Your task to perform on an android device: Search for jbl flip 4 on ebay, select the first entry, and add it to the cart. Image 0: 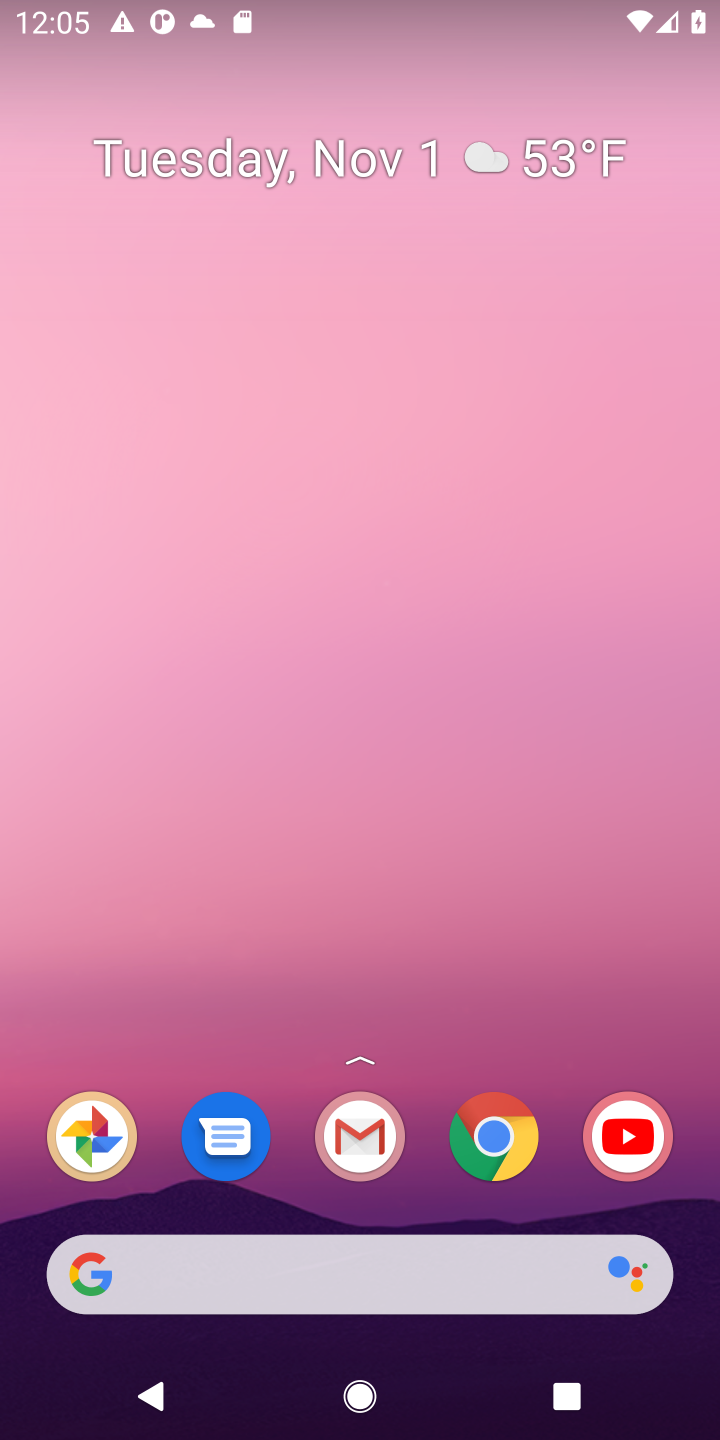
Step 0: press home button
Your task to perform on an android device: Search for jbl flip 4 on ebay, select the first entry, and add it to the cart. Image 1: 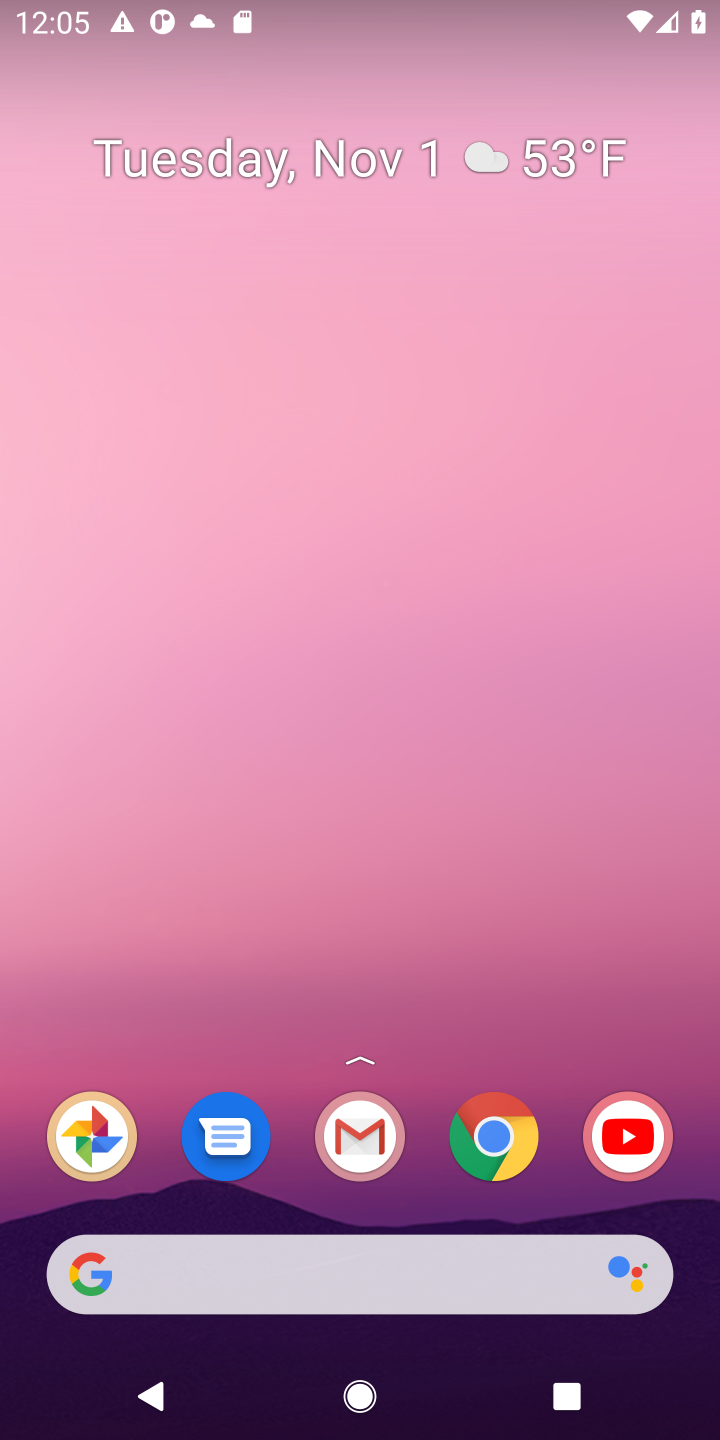
Step 1: click (144, 1256)
Your task to perform on an android device: Search for jbl flip 4 on ebay, select the first entry, and add it to the cart. Image 2: 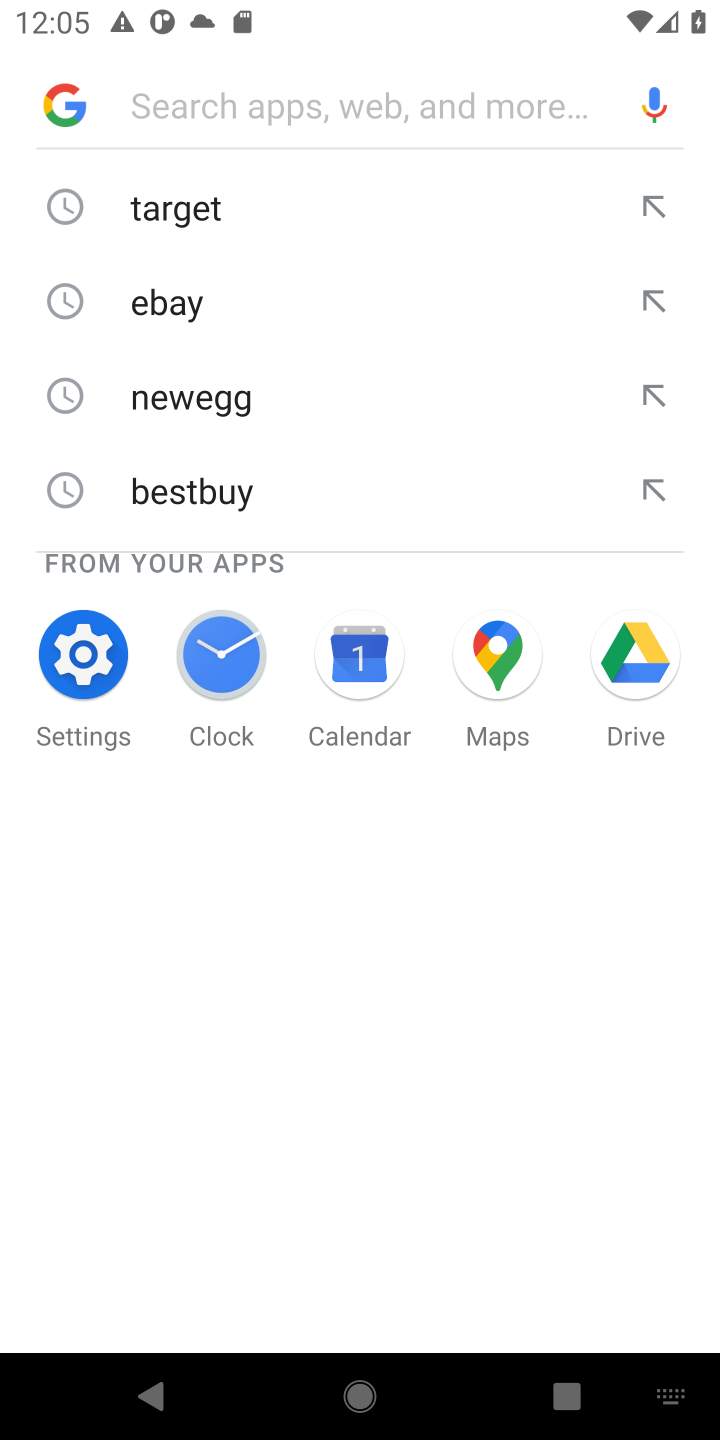
Step 2: press enter
Your task to perform on an android device: Search for jbl flip 4 on ebay, select the first entry, and add it to the cart. Image 3: 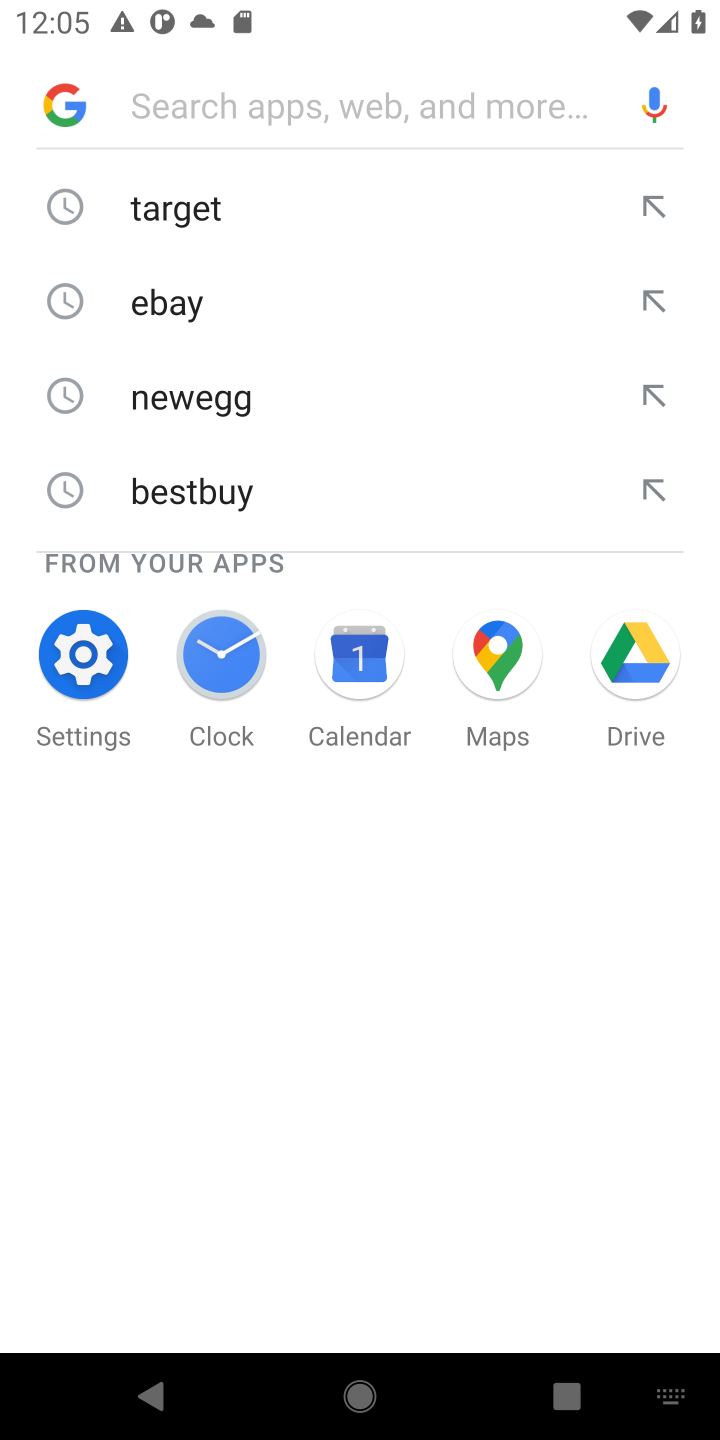
Step 3: type "ebay"
Your task to perform on an android device: Search for jbl flip 4 on ebay, select the first entry, and add it to the cart. Image 4: 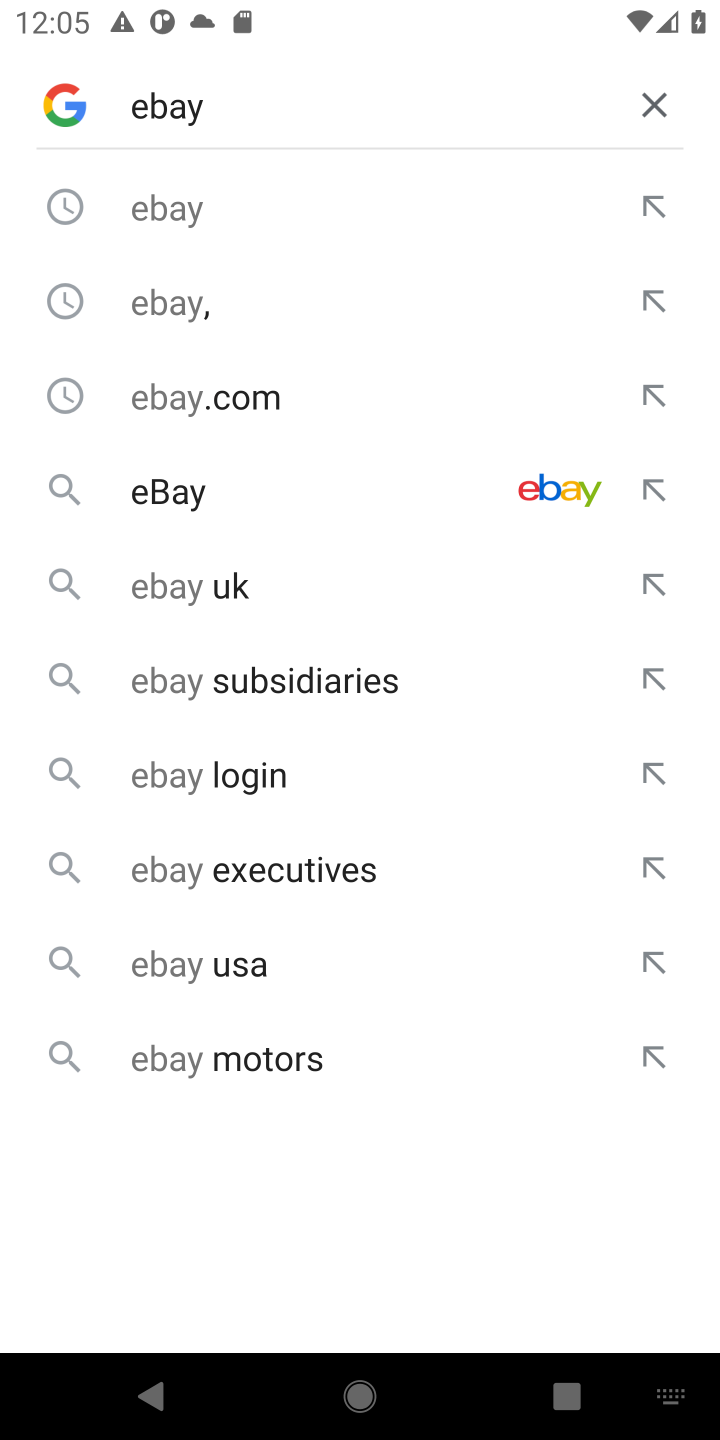
Step 4: press enter
Your task to perform on an android device: Search for jbl flip 4 on ebay, select the first entry, and add it to the cart. Image 5: 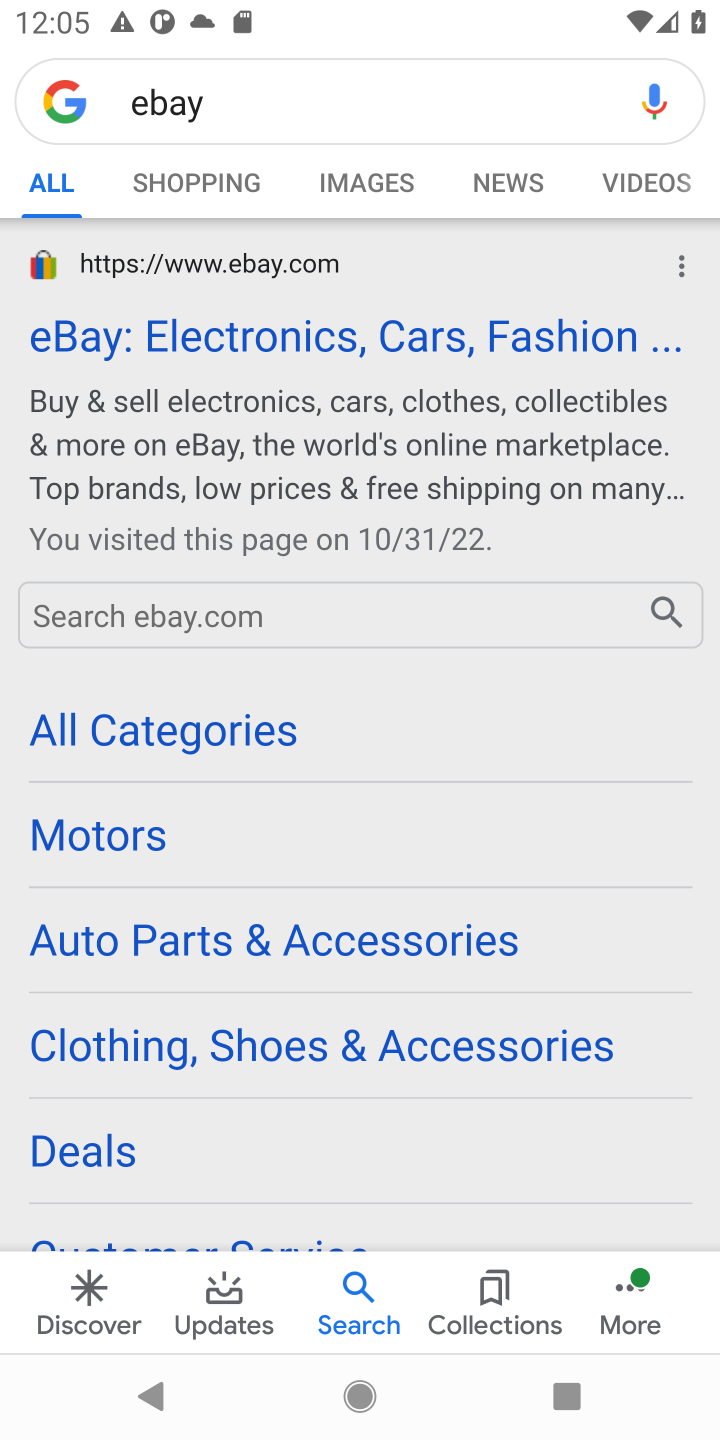
Step 5: click (151, 329)
Your task to perform on an android device: Search for jbl flip 4 on ebay, select the first entry, and add it to the cart. Image 6: 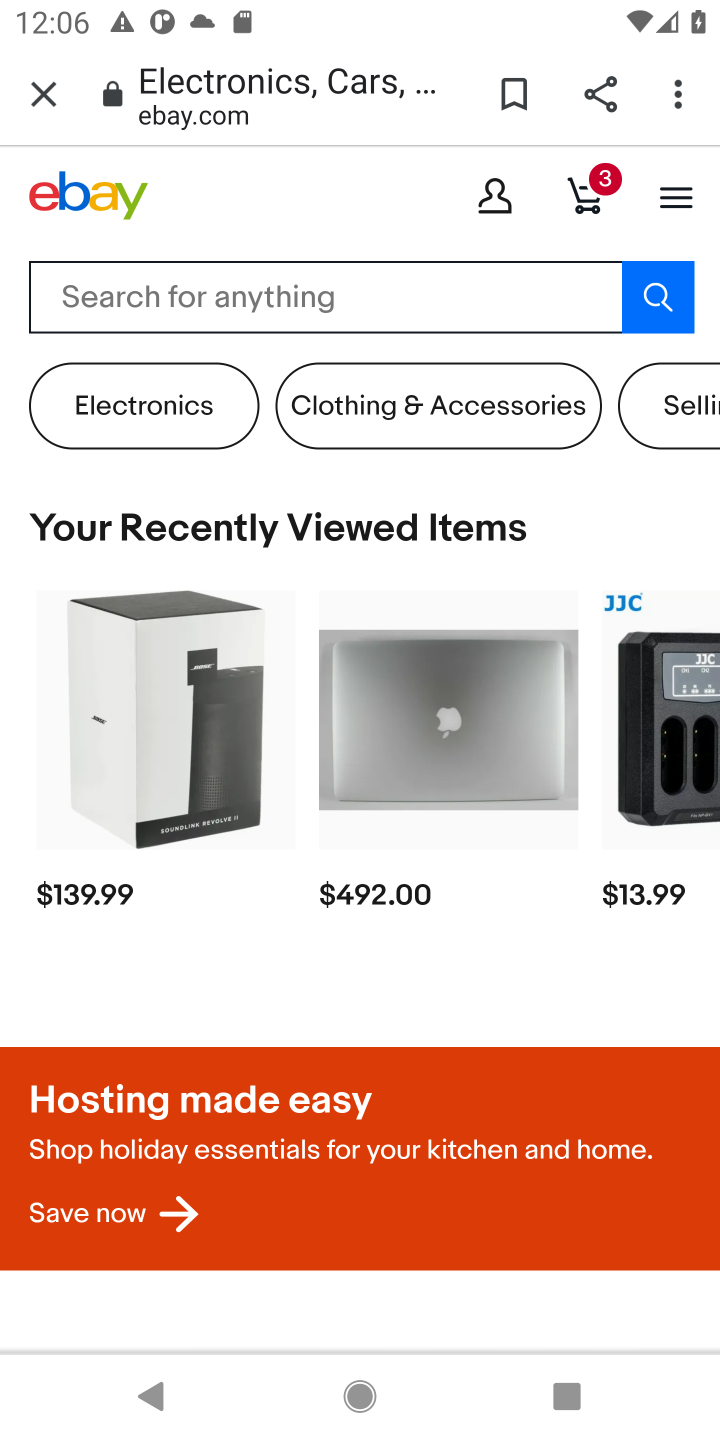
Step 6: click (209, 293)
Your task to perform on an android device: Search for jbl flip 4 on ebay, select the first entry, and add it to the cart. Image 7: 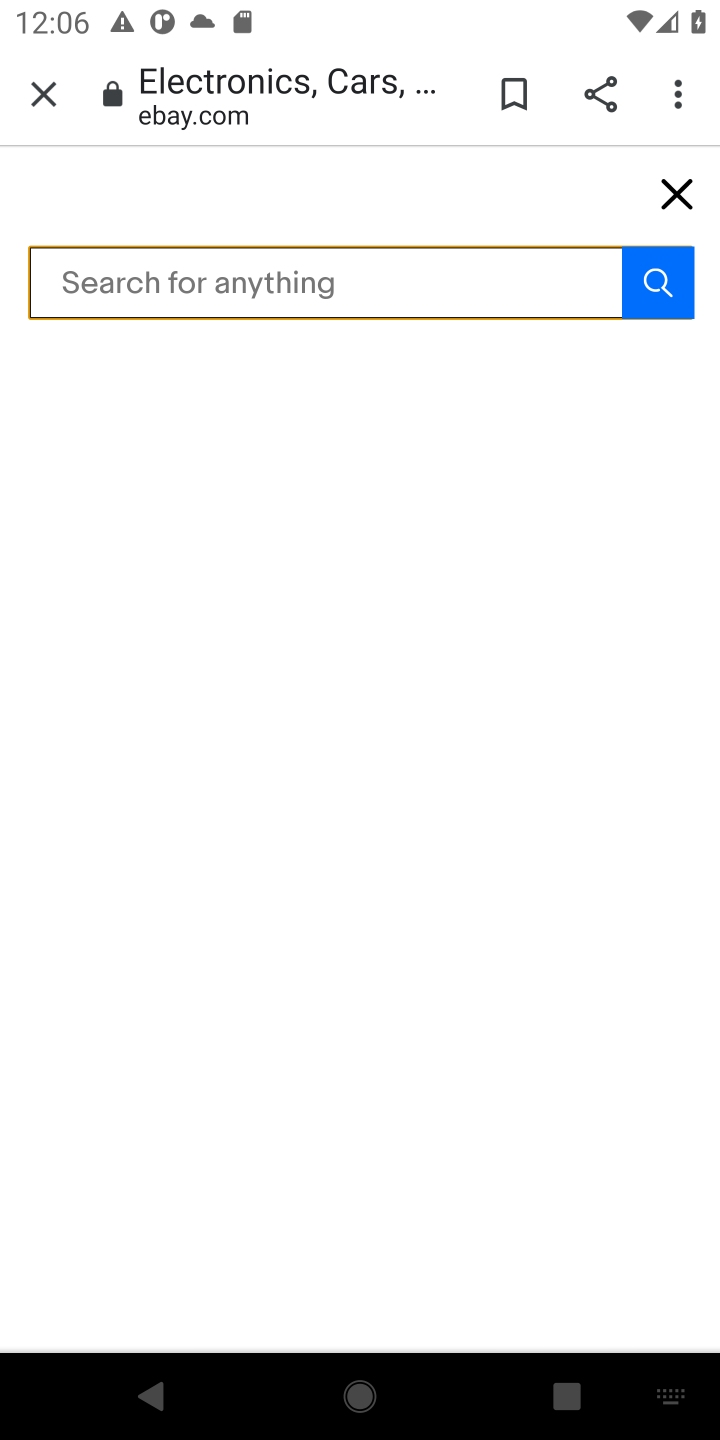
Step 7: type "jbl flip 4"
Your task to perform on an android device: Search for jbl flip 4 on ebay, select the first entry, and add it to the cart. Image 8: 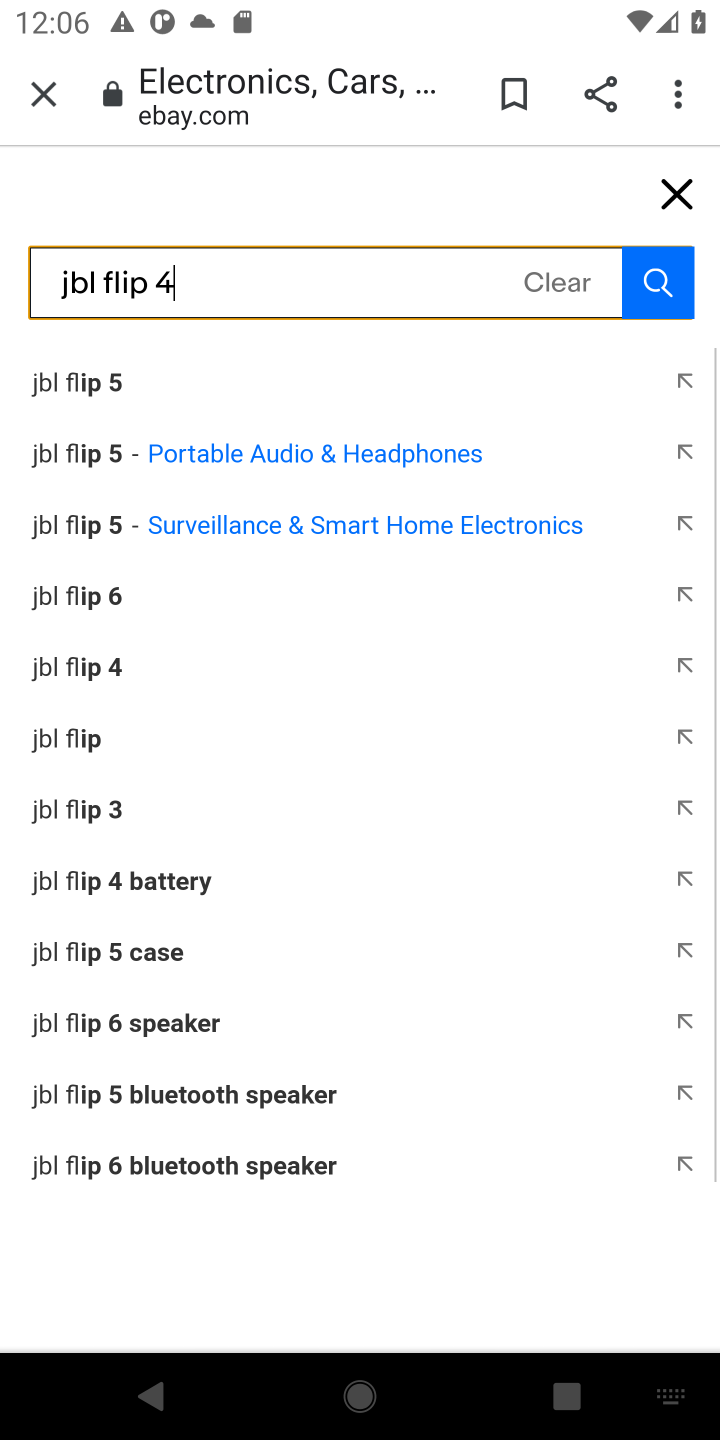
Step 8: press enter
Your task to perform on an android device: Search for jbl flip 4 on ebay, select the first entry, and add it to the cart. Image 9: 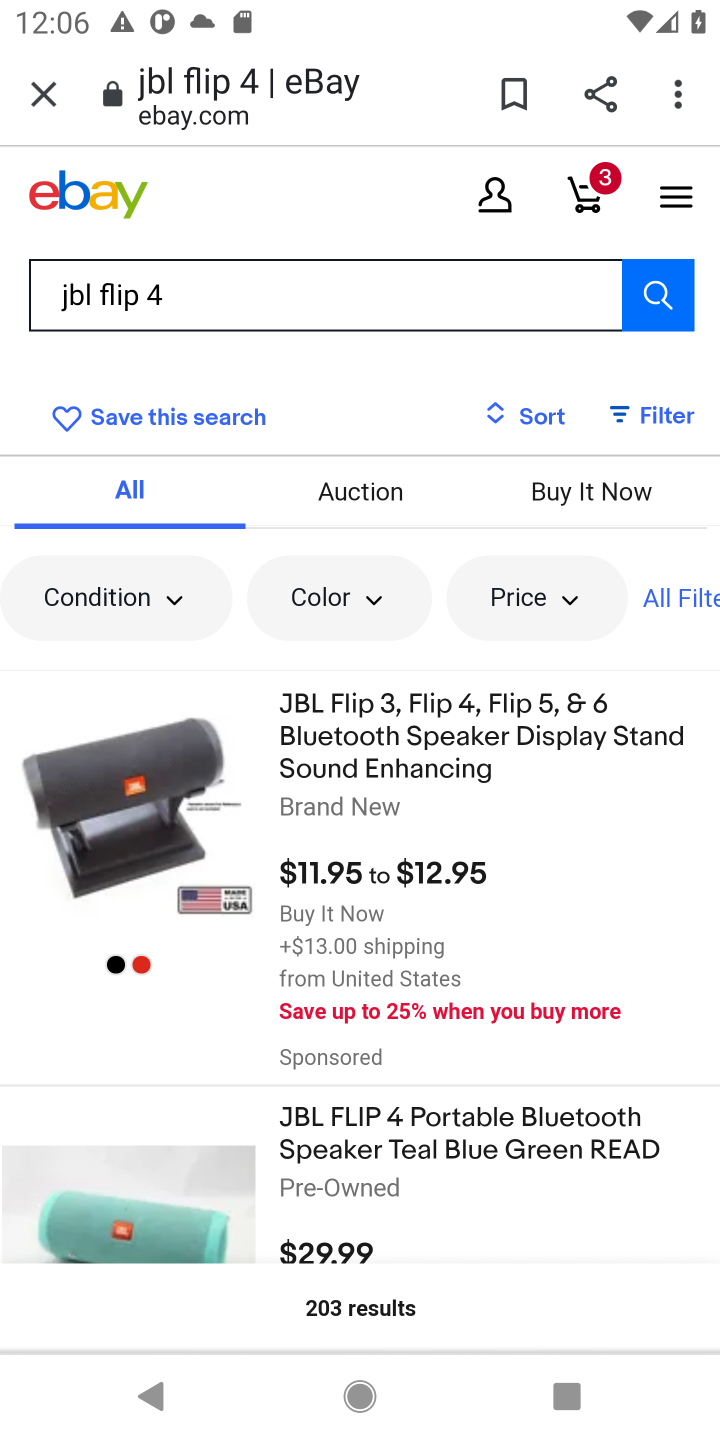
Step 9: drag from (512, 1153) to (502, 791)
Your task to perform on an android device: Search for jbl flip 4 on ebay, select the first entry, and add it to the cart. Image 10: 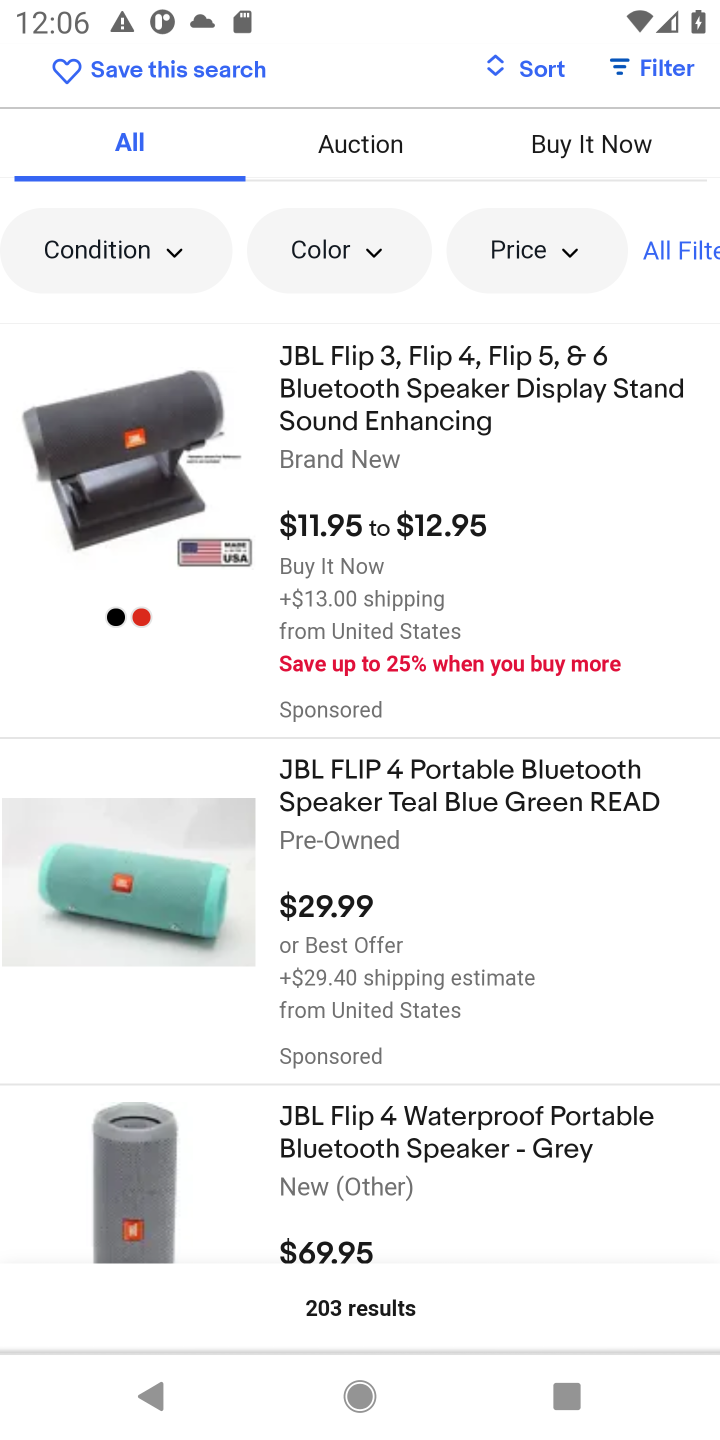
Step 10: click (342, 788)
Your task to perform on an android device: Search for jbl flip 4 on ebay, select the first entry, and add it to the cart. Image 11: 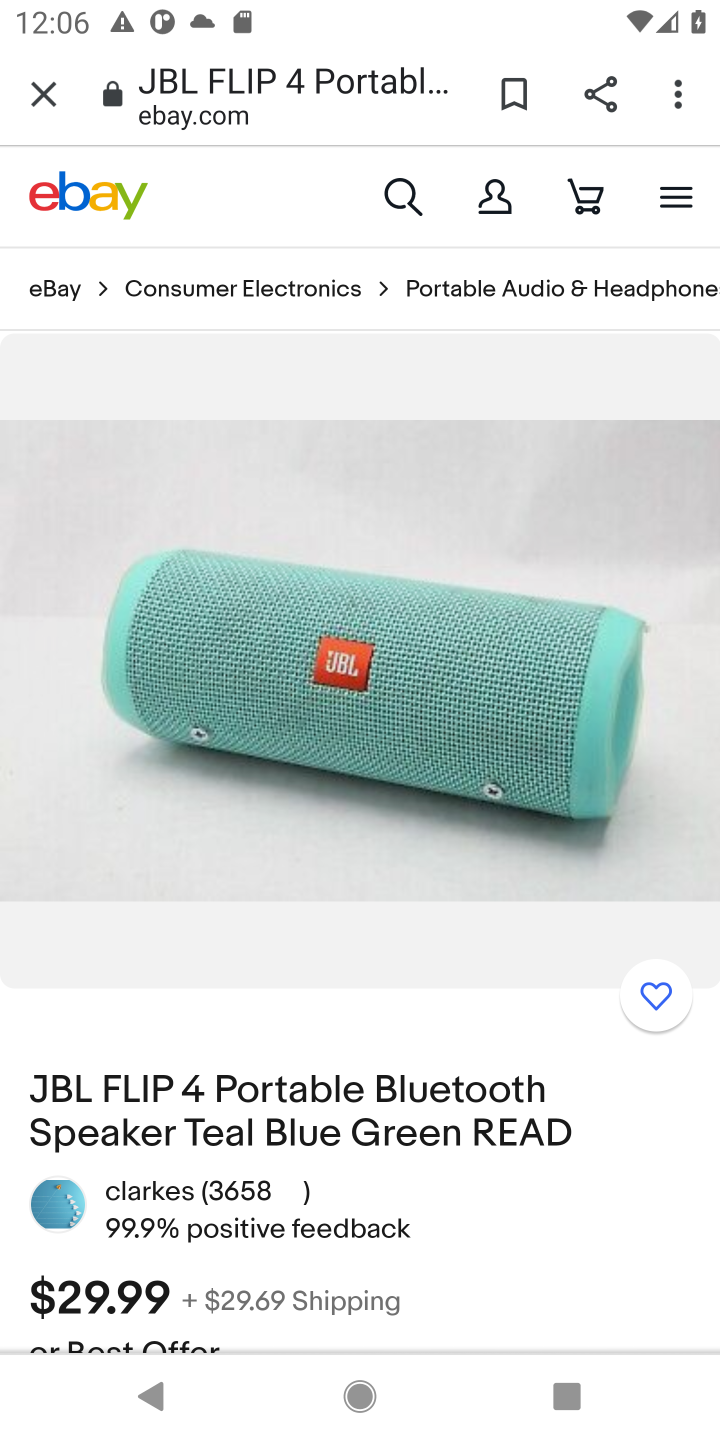
Step 11: drag from (350, 1070) to (391, 718)
Your task to perform on an android device: Search for jbl flip 4 on ebay, select the first entry, and add it to the cart. Image 12: 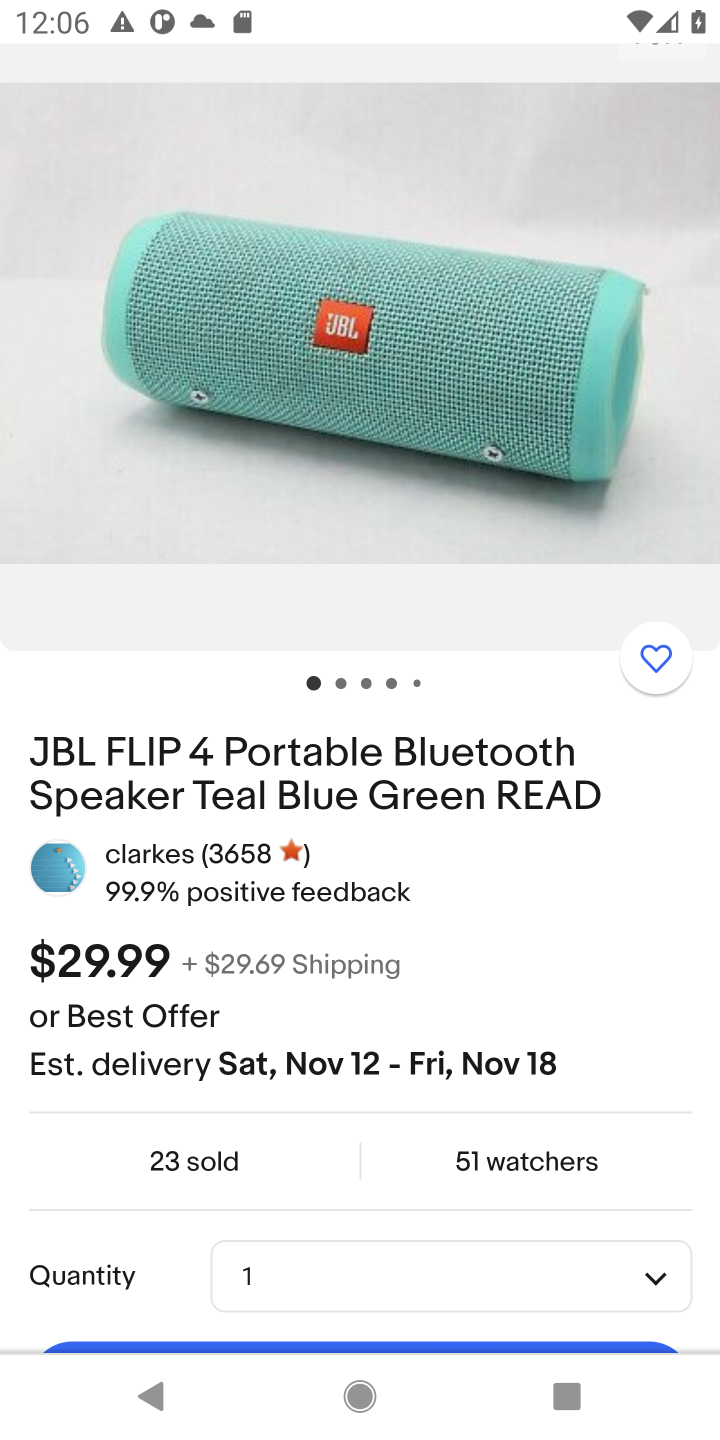
Step 12: drag from (321, 1080) to (370, 539)
Your task to perform on an android device: Search for jbl flip 4 on ebay, select the first entry, and add it to the cart. Image 13: 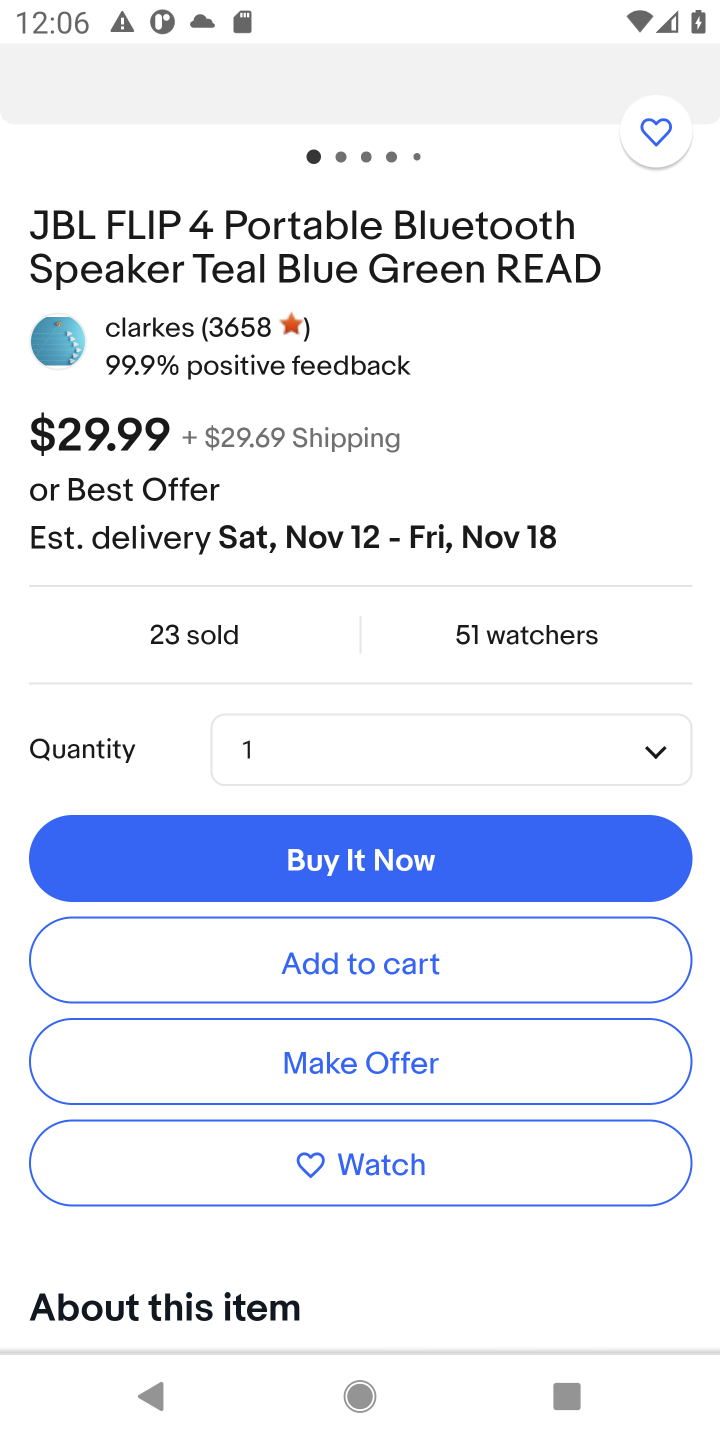
Step 13: click (318, 959)
Your task to perform on an android device: Search for jbl flip 4 on ebay, select the first entry, and add it to the cart. Image 14: 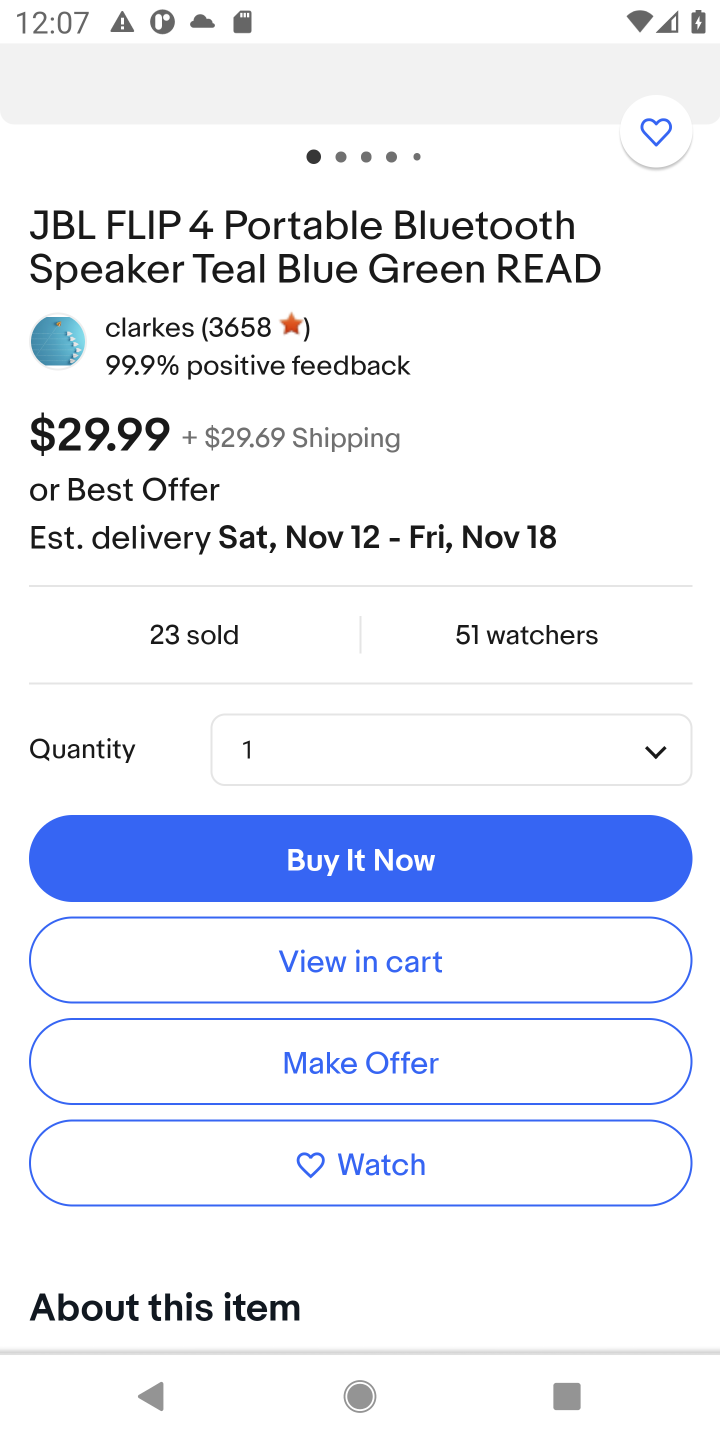
Step 14: task complete